Your task to perform on an android device: Open maps Image 0: 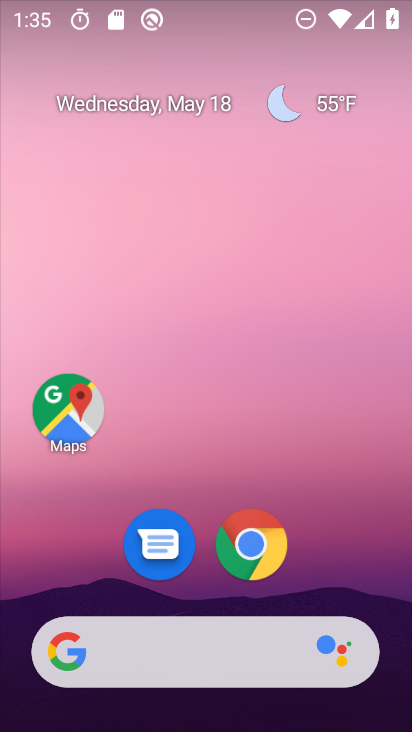
Step 0: click (81, 408)
Your task to perform on an android device: Open maps Image 1: 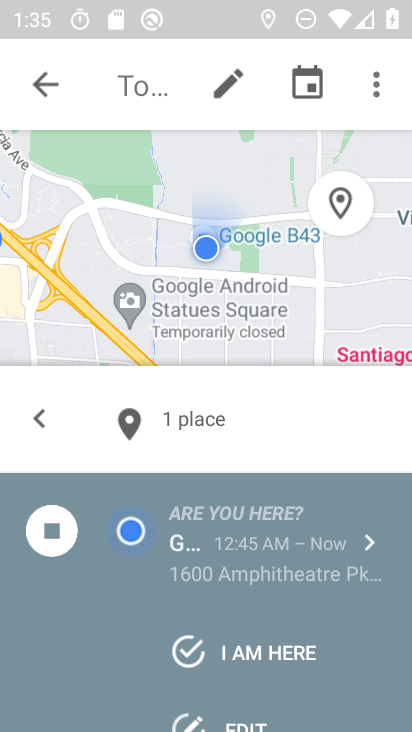
Step 1: task complete